Your task to perform on an android device: Go to network settings Image 0: 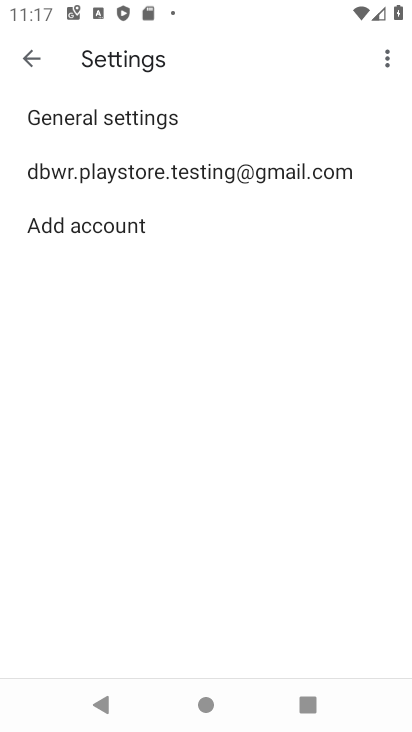
Step 0: press home button
Your task to perform on an android device: Go to network settings Image 1: 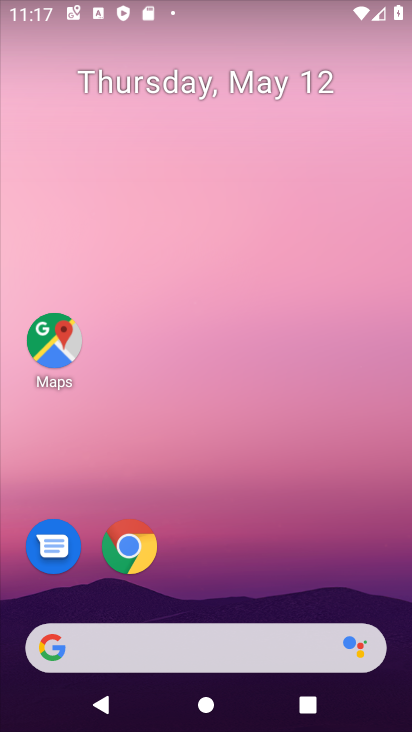
Step 1: drag from (250, 665) to (352, 141)
Your task to perform on an android device: Go to network settings Image 2: 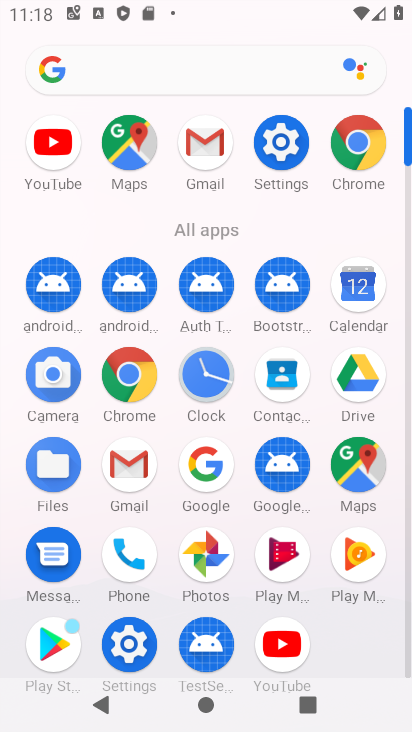
Step 2: click (291, 141)
Your task to perform on an android device: Go to network settings Image 3: 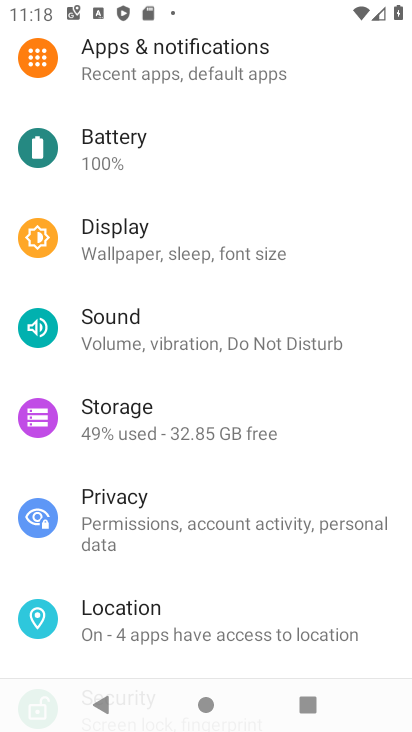
Step 3: drag from (142, 171) to (171, 563)
Your task to perform on an android device: Go to network settings Image 4: 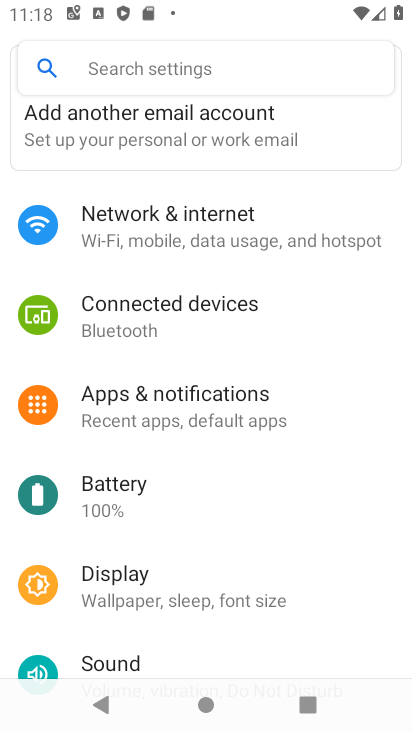
Step 4: click (152, 222)
Your task to perform on an android device: Go to network settings Image 5: 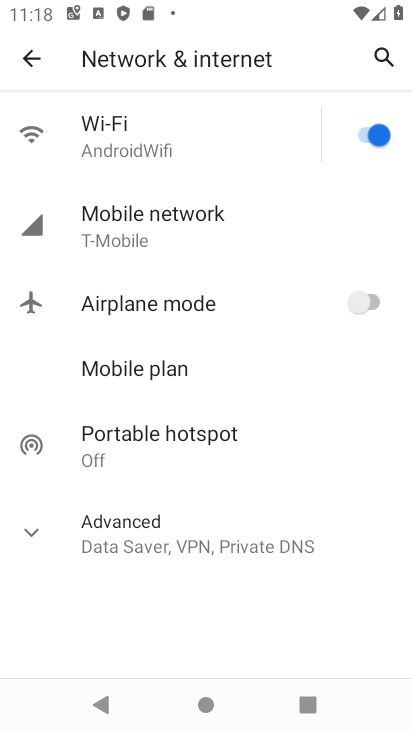
Step 5: task complete